Your task to perform on an android device: Go to network settings Image 0: 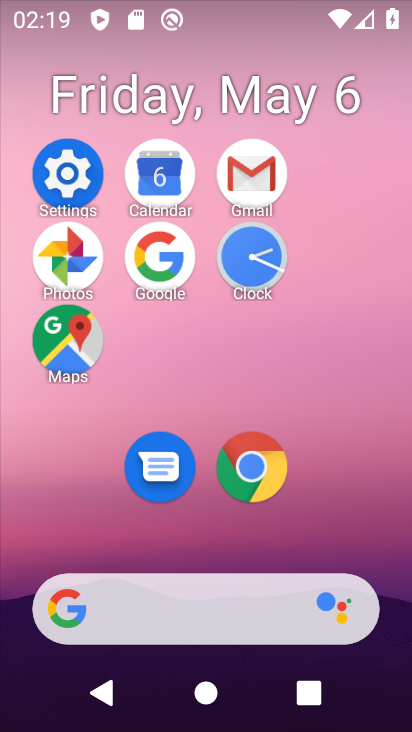
Step 0: click (68, 178)
Your task to perform on an android device: Go to network settings Image 1: 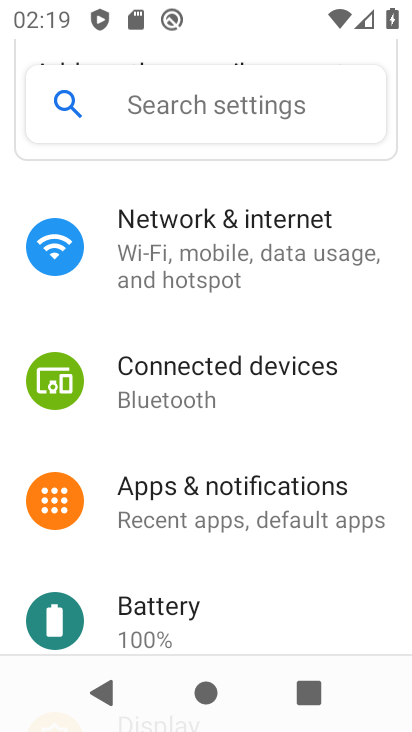
Step 1: click (201, 242)
Your task to perform on an android device: Go to network settings Image 2: 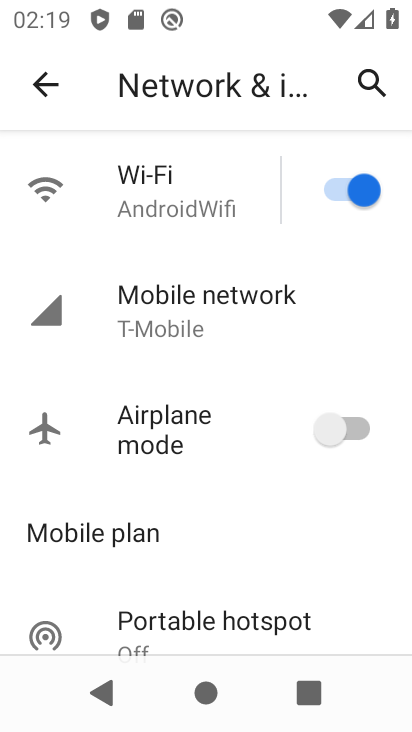
Step 2: click (232, 327)
Your task to perform on an android device: Go to network settings Image 3: 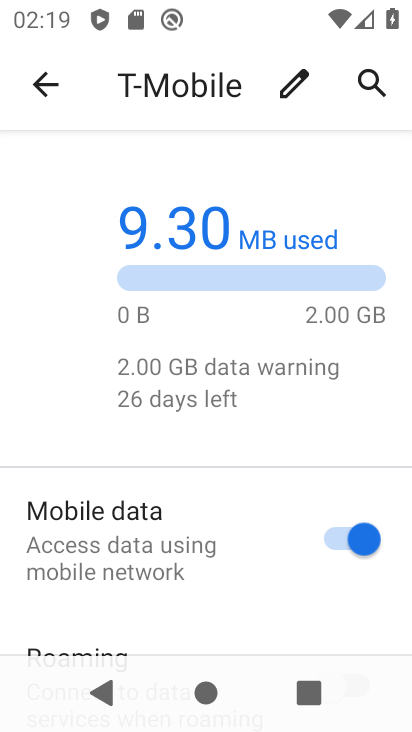
Step 3: task complete